Your task to perform on an android device: Turn off the flashlight Image 0: 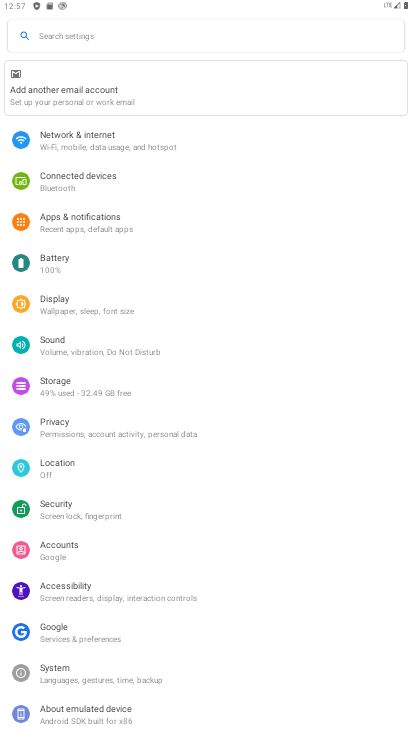
Step 0: press home button
Your task to perform on an android device: Turn off the flashlight Image 1: 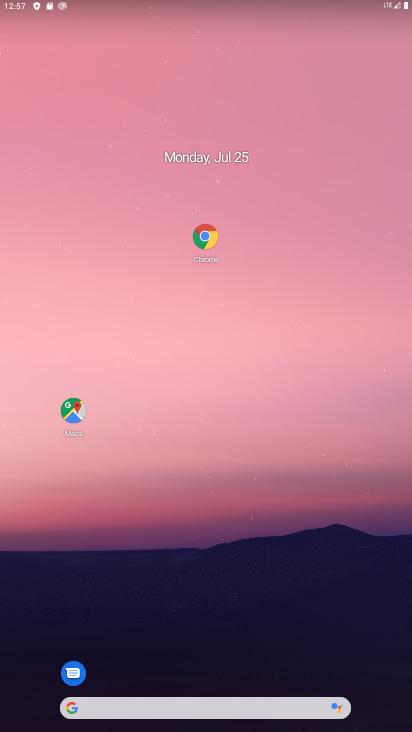
Step 1: drag from (187, 695) to (264, 55)
Your task to perform on an android device: Turn off the flashlight Image 2: 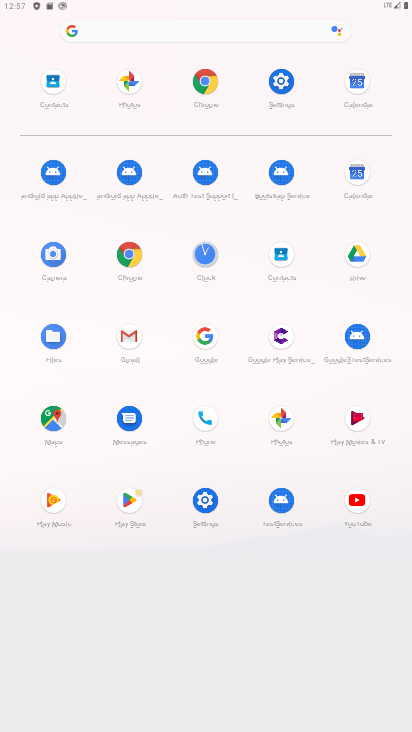
Step 2: click (278, 85)
Your task to perform on an android device: Turn off the flashlight Image 3: 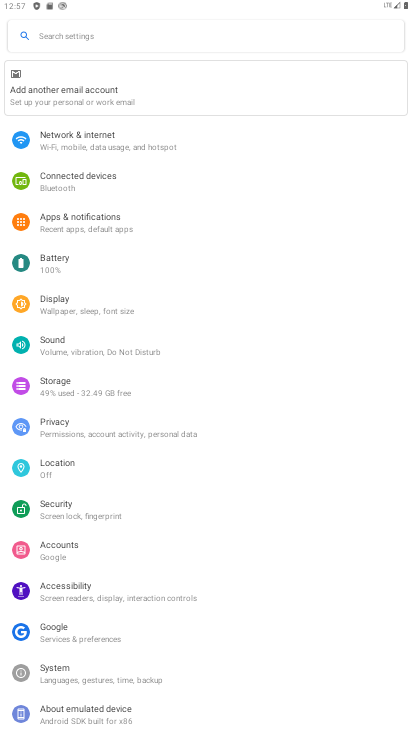
Step 3: drag from (171, 5) to (176, 707)
Your task to perform on an android device: Turn off the flashlight Image 4: 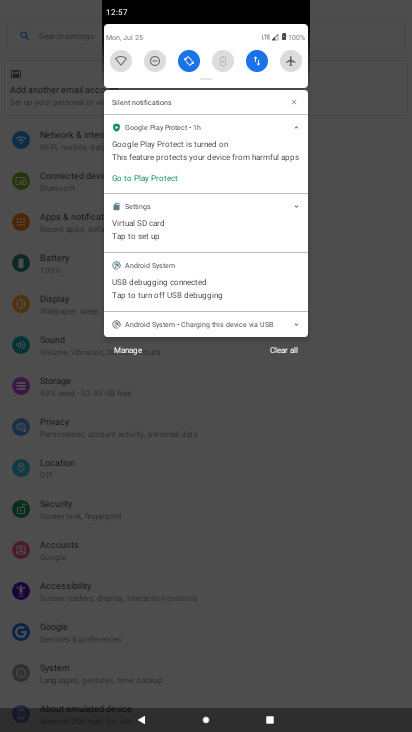
Step 4: drag from (206, 70) to (206, 602)
Your task to perform on an android device: Turn off the flashlight Image 5: 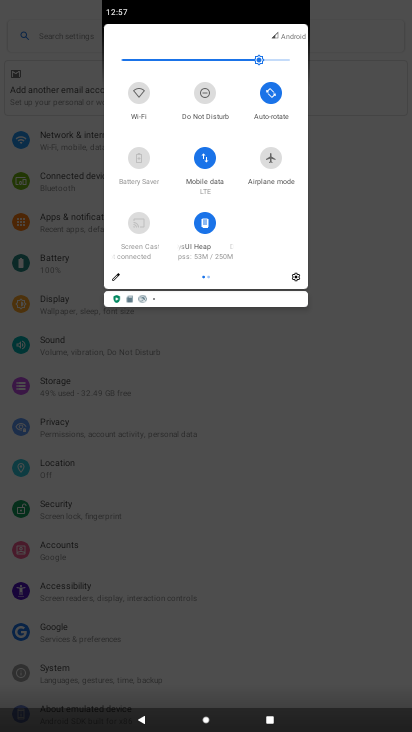
Step 5: click (350, 487)
Your task to perform on an android device: Turn off the flashlight Image 6: 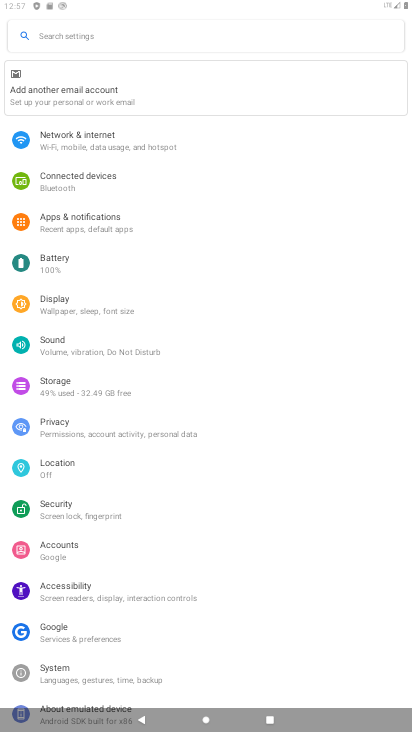
Step 6: task complete